Your task to perform on an android device: Open the web browser Image 0: 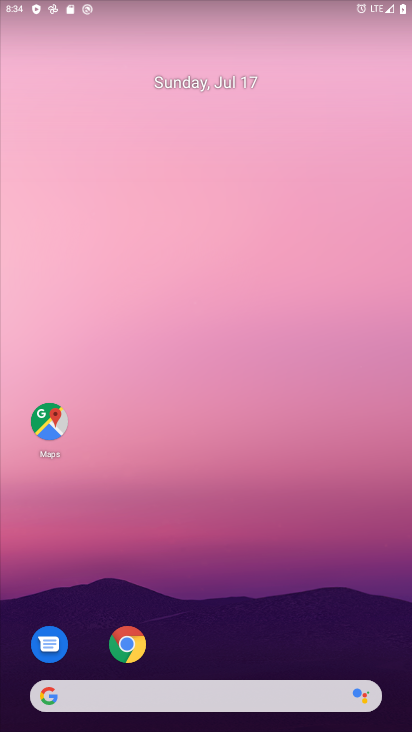
Step 0: click (238, 195)
Your task to perform on an android device: Open the web browser Image 1: 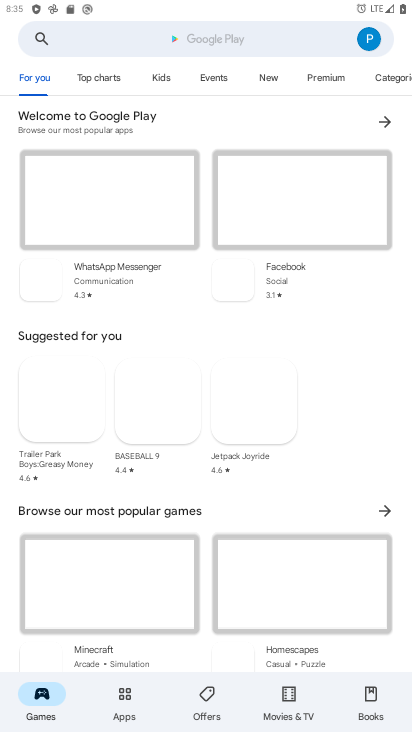
Step 1: press back button
Your task to perform on an android device: Open the web browser Image 2: 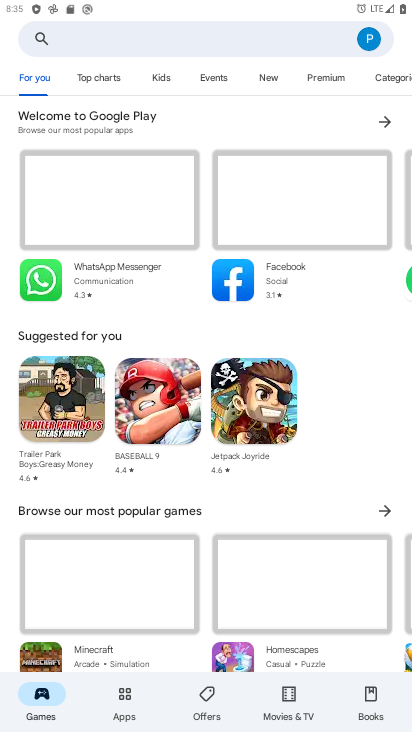
Step 2: press back button
Your task to perform on an android device: Open the web browser Image 3: 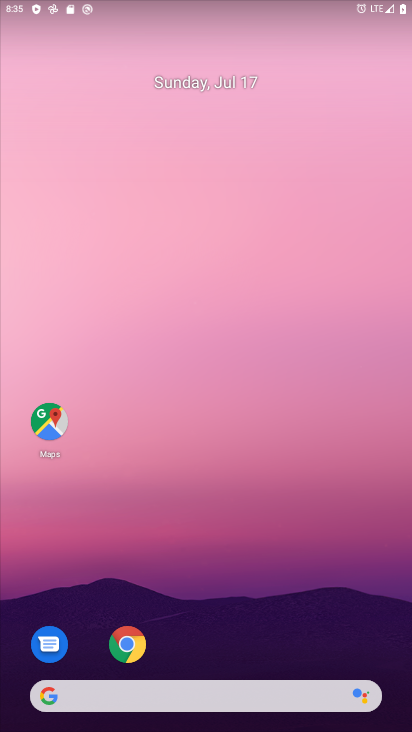
Step 3: drag from (181, 652) to (209, 136)
Your task to perform on an android device: Open the web browser Image 4: 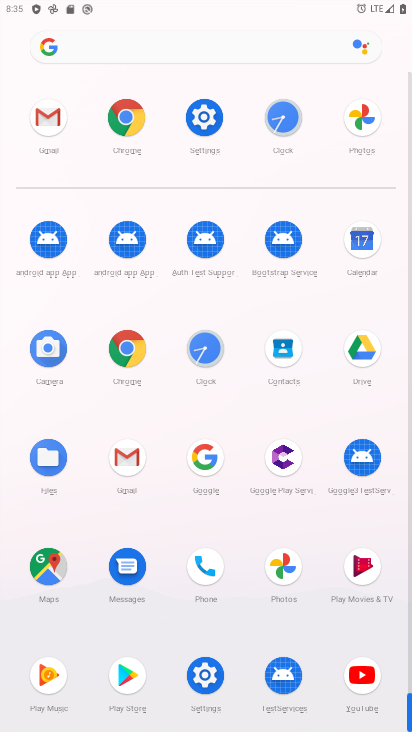
Step 4: click (125, 108)
Your task to perform on an android device: Open the web browser Image 5: 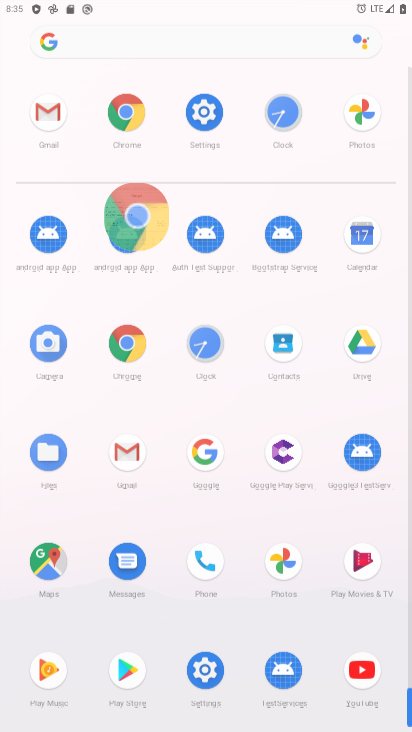
Step 5: click (127, 111)
Your task to perform on an android device: Open the web browser Image 6: 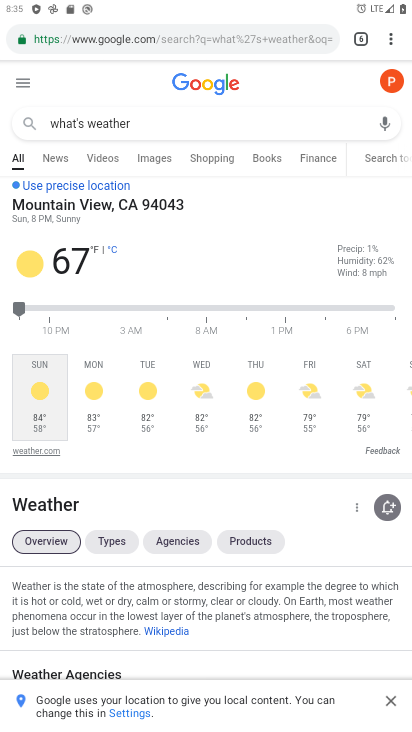
Step 6: drag from (392, 40) to (250, 76)
Your task to perform on an android device: Open the web browser Image 7: 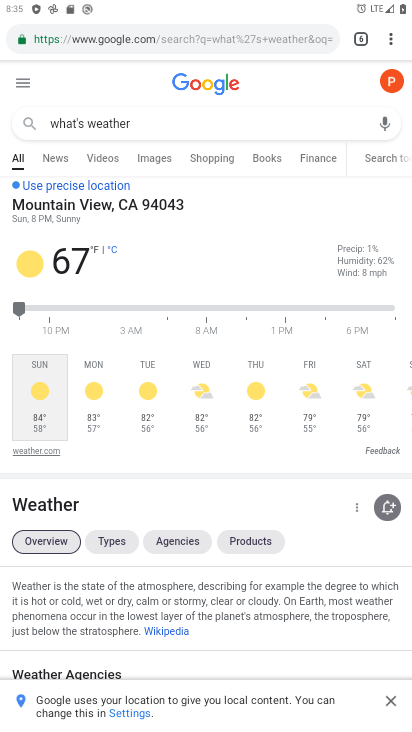
Step 7: click (253, 79)
Your task to perform on an android device: Open the web browser Image 8: 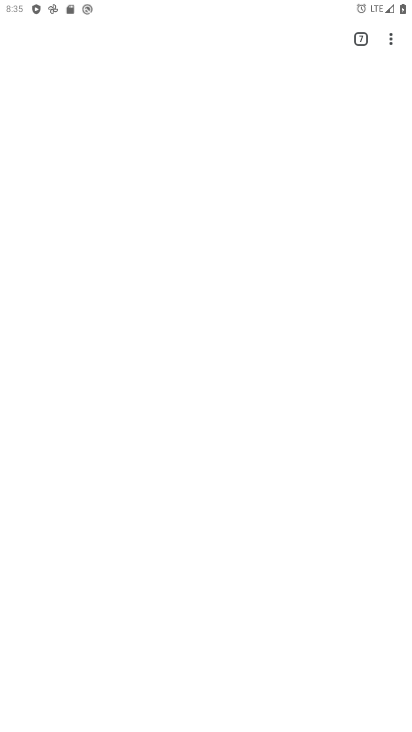
Step 8: click (259, 74)
Your task to perform on an android device: Open the web browser Image 9: 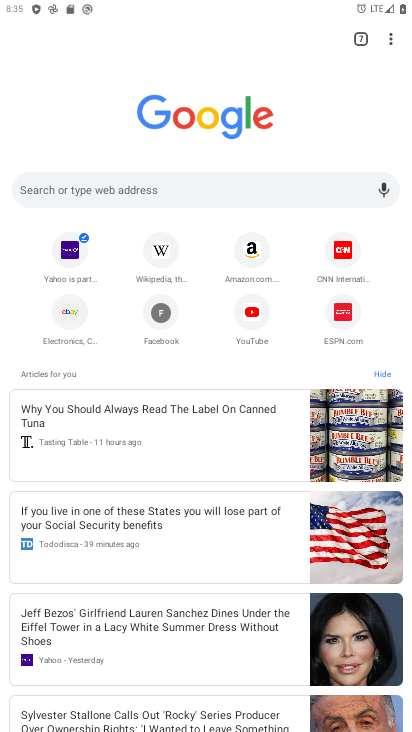
Step 9: click (75, 189)
Your task to perform on an android device: Open the web browser Image 10: 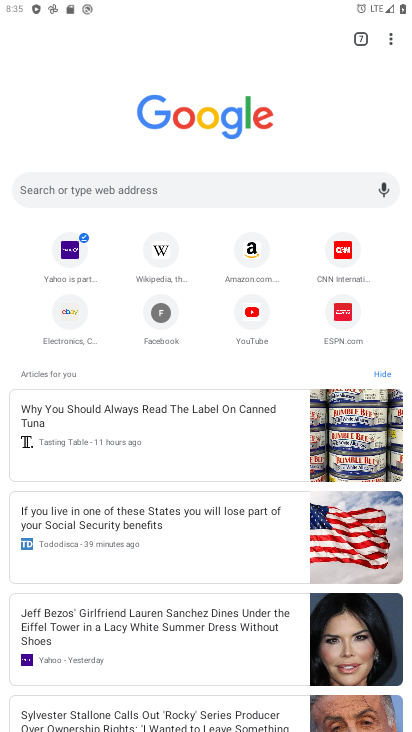
Step 10: click (75, 190)
Your task to perform on an android device: Open the web browser Image 11: 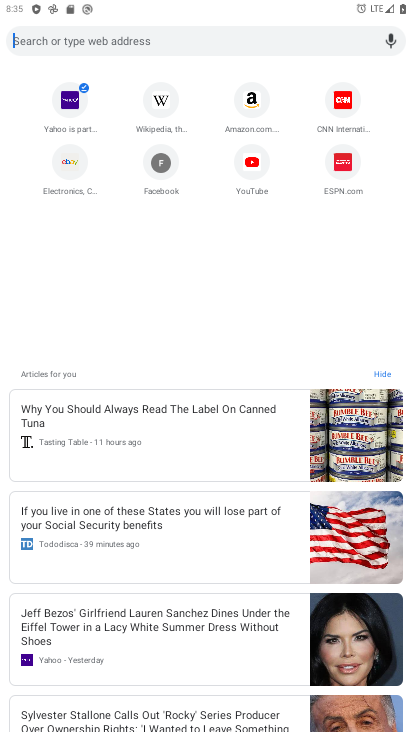
Step 11: click (77, 202)
Your task to perform on an android device: Open the web browser Image 12: 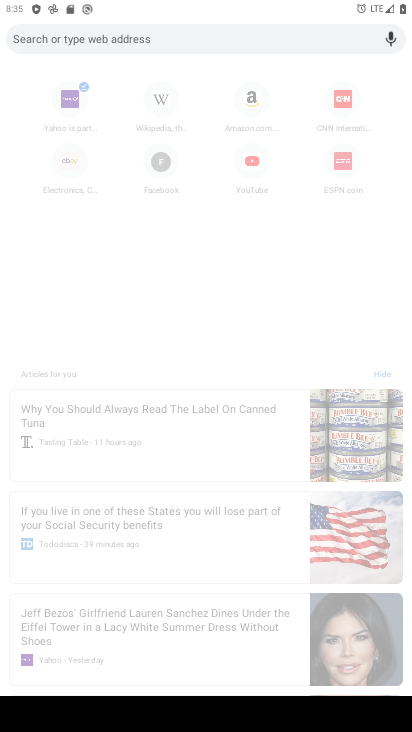
Step 12: click (80, 195)
Your task to perform on an android device: Open the web browser Image 13: 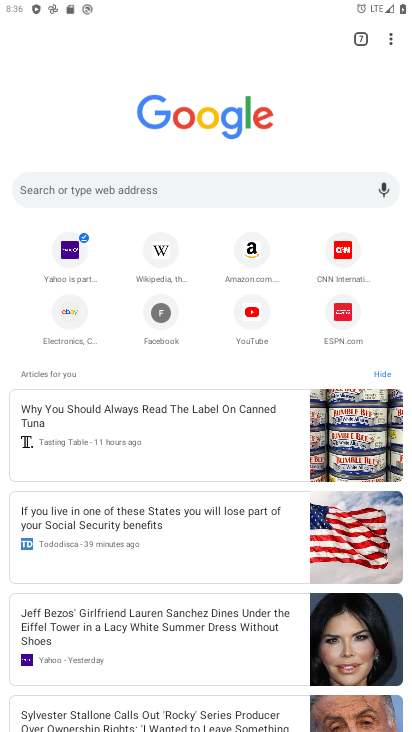
Step 13: task complete